Your task to perform on an android device: turn on showing notifications on the lock screen Image 0: 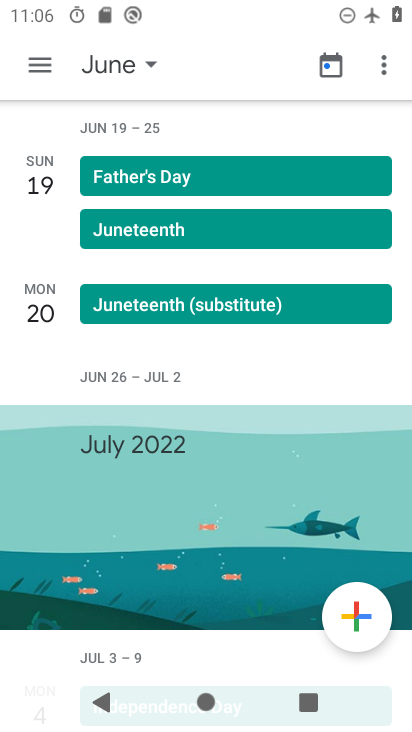
Step 0: press home button
Your task to perform on an android device: turn on showing notifications on the lock screen Image 1: 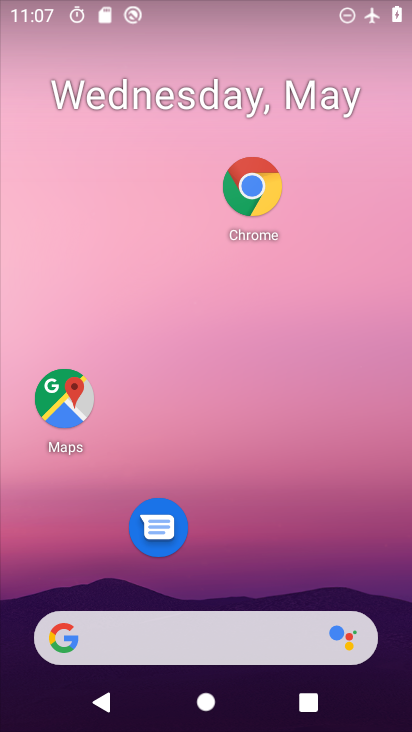
Step 1: drag from (318, 638) to (403, 355)
Your task to perform on an android device: turn on showing notifications on the lock screen Image 2: 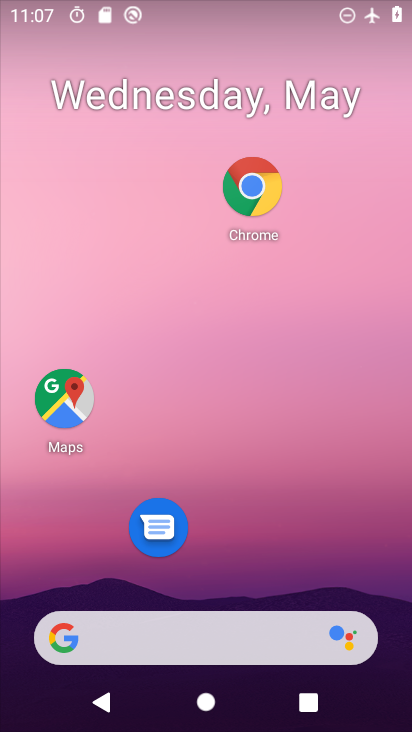
Step 2: drag from (224, 634) to (313, 56)
Your task to perform on an android device: turn on showing notifications on the lock screen Image 3: 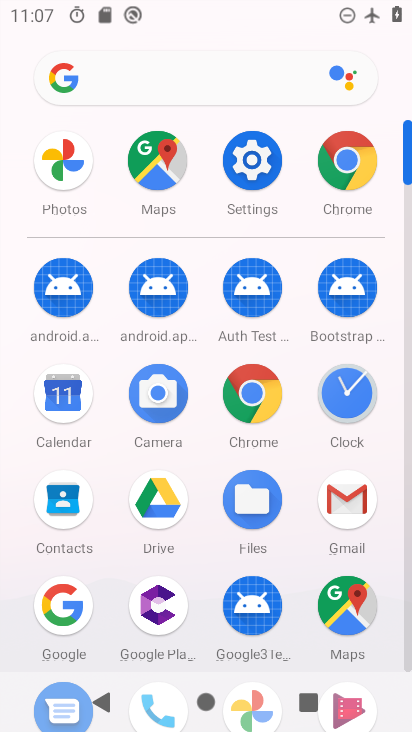
Step 3: click (257, 155)
Your task to perform on an android device: turn on showing notifications on the lock screen Image 4: 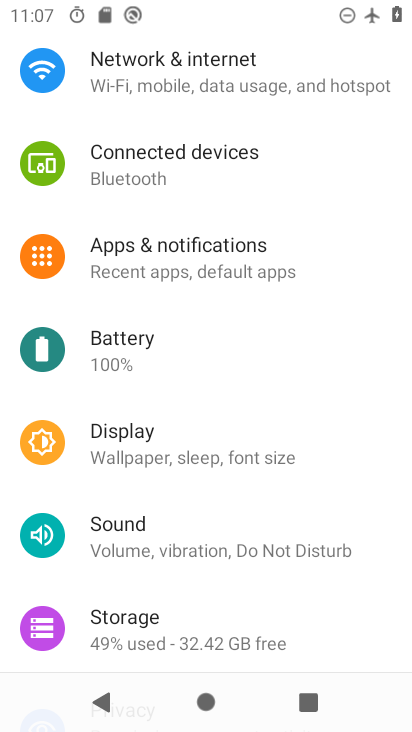
Step 4: click (235, 509)
Your task to perform on an android device: turn on showing notifications on the lock screen Image 5: 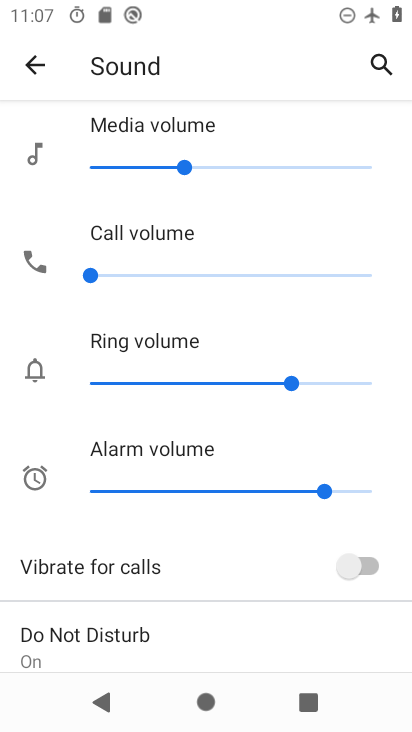
Step 5: click (31, 70)
Your task to perform on an android device: turn on showing notifications on the lock screen Image 6: 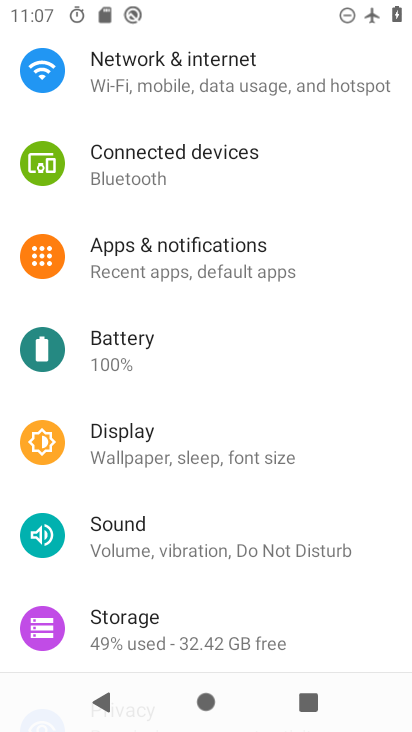
Step 6: click (216, 255)
Your task to perform on an android device: turn on showing notifications on the lock screen Image 7: 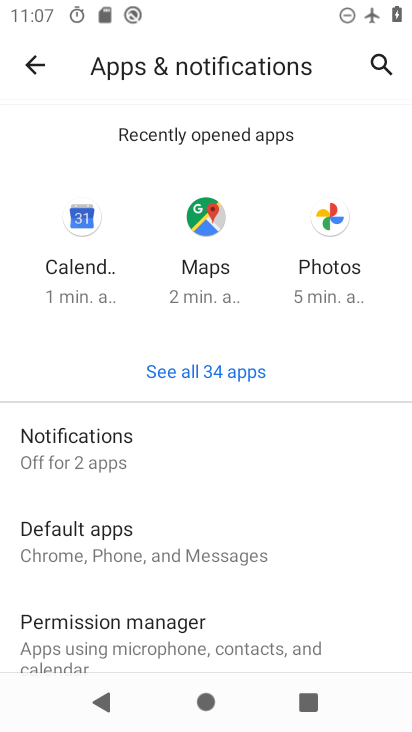
Step 7: click (156, 473)
Your task to perform on an android device: turn on showing notifications on the lock screen Image 8: 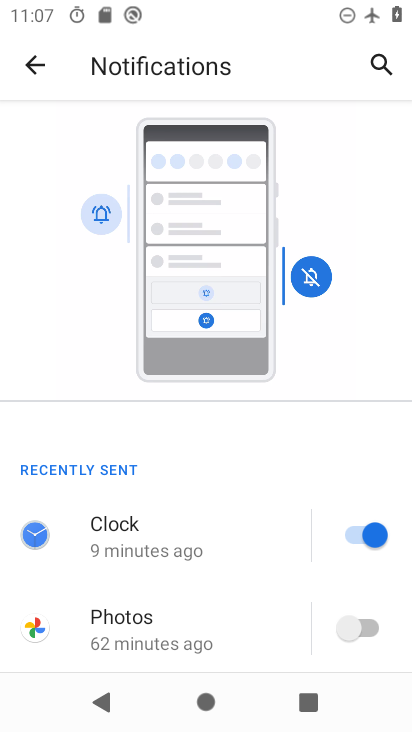
Step 8: drag from (137, 608) to (174, 353)
Your task to perform on an android device: turn on showing notifications on the lock screen Image 9: 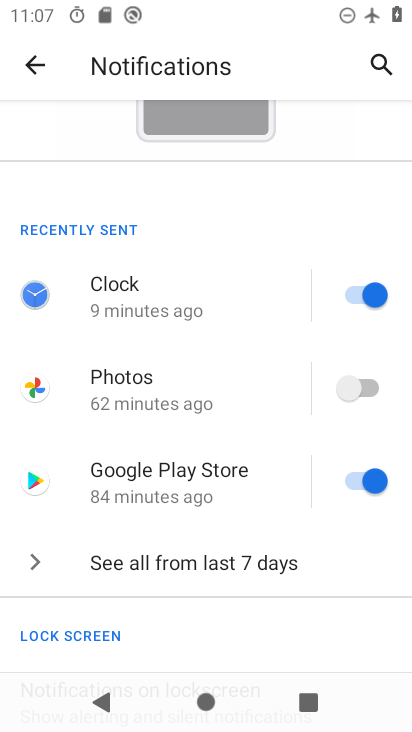
Step 9: drag from (182, 490) to (259, 260)
Your task to perform on an android device: turn on showing notifications on the lock screen Image 10: 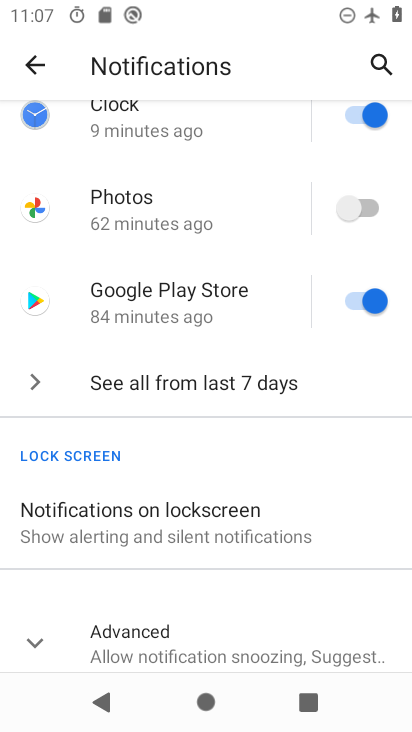
Step 10: click (218, 531)
Your task to perform on an android device: turn on showing notifications on the lock screen Image 11: 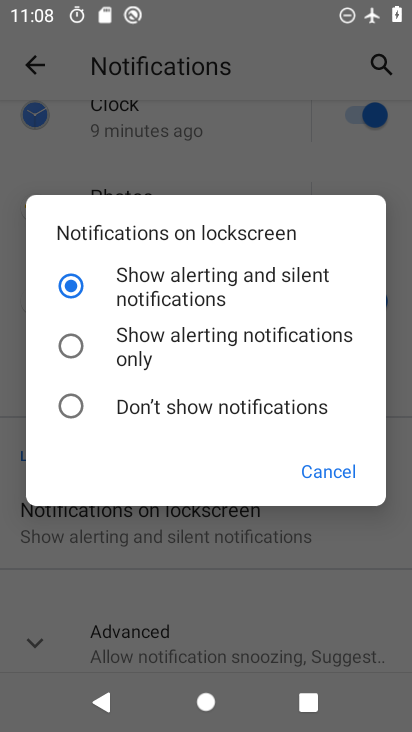
Step 11: task complete